Your task to perform on an android device: snooze an email in the gmail app Image 0: 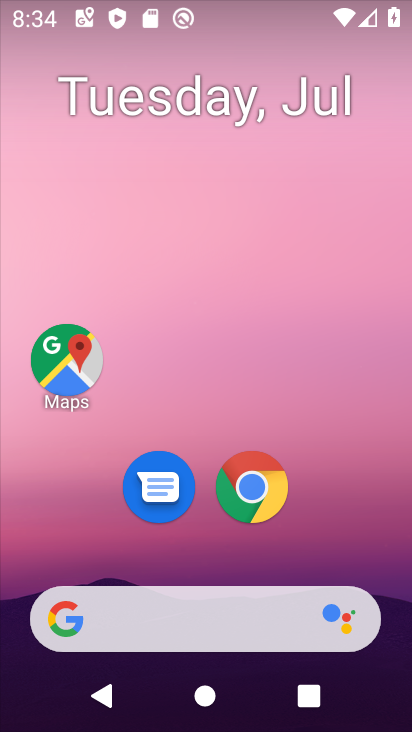
Step 0: drag from (164, 479) to (295, 21)
Your task to perform on an android device: snooze an email in the gmail app Image 1: 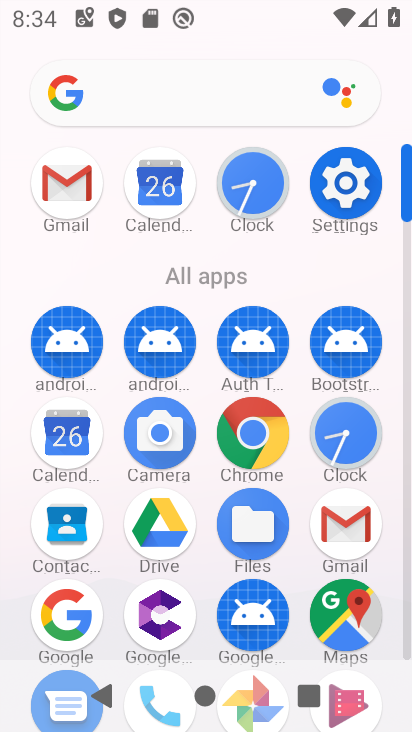
Step 1: click (66, 189)
Your task to perform on an android device: snooze an email in the gmail app Image 2: 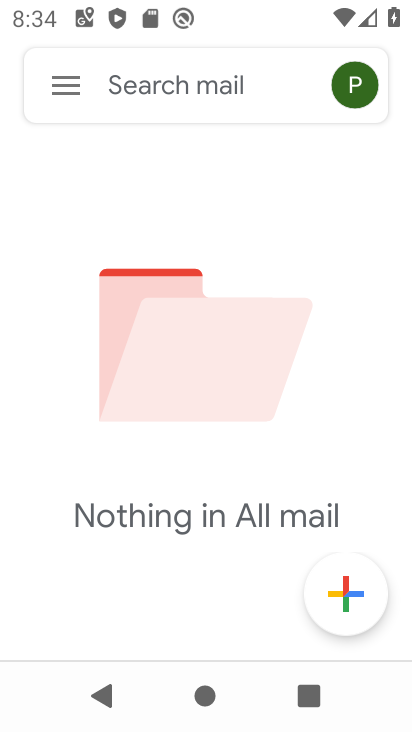
Step 2: task complete